Your task to perform on an android device: What is the news today? Image 0: 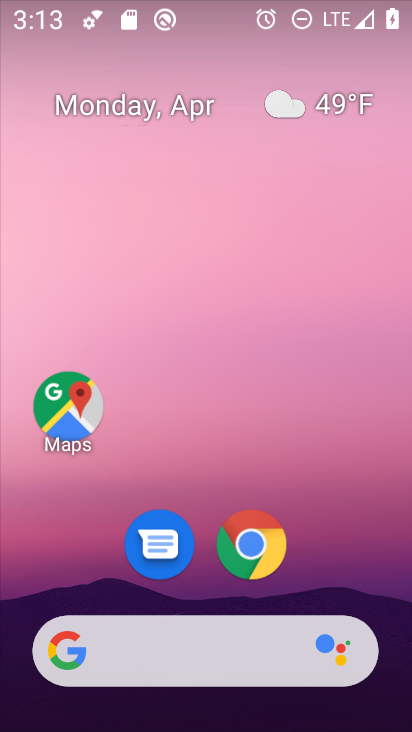
Step 0: drag from (334, 553) to (222, 48)
Your task to perform on an android device: What is the news today? Image 1: 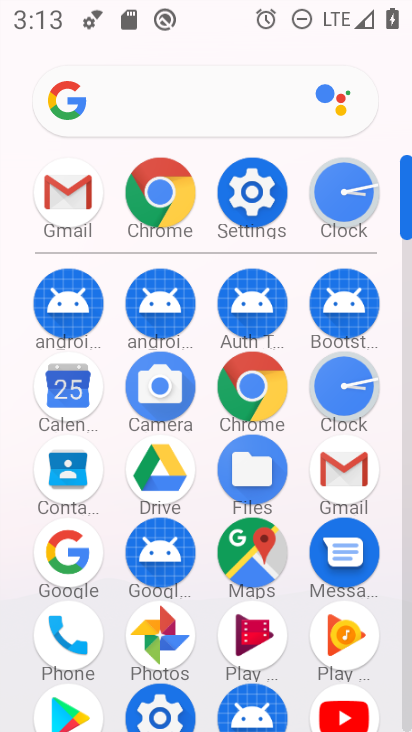
Step 1: click (68, 552)
Your task to perform on an android device: What is the news today? Image 2: 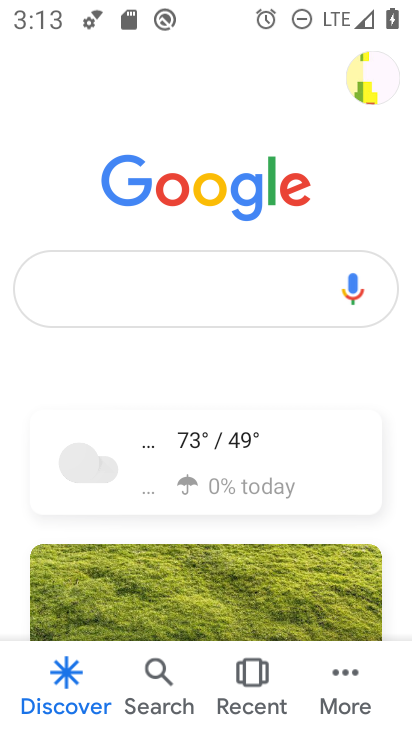
Step 2: task complete